Your task to perform on an android device: open device folders in google photos Image 0: 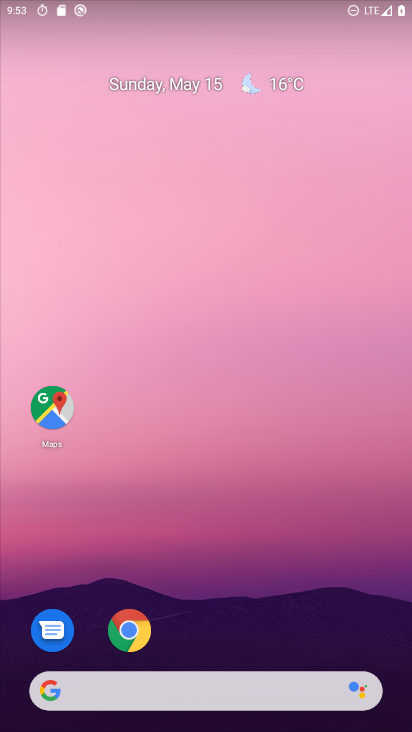
Step 0: drag from (224, 645) to (318, 182)
Your task to perform on an android device: open device folders in google photos Image 1: 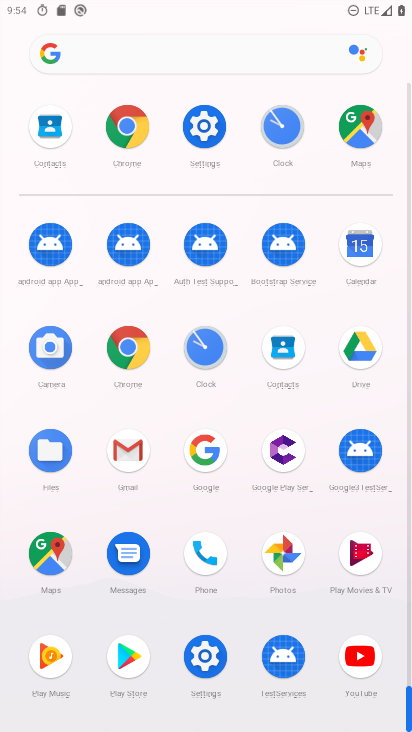
Step 1: click (280, 560)
Your task to perform on an android device: open device folders in google photos Image 2: 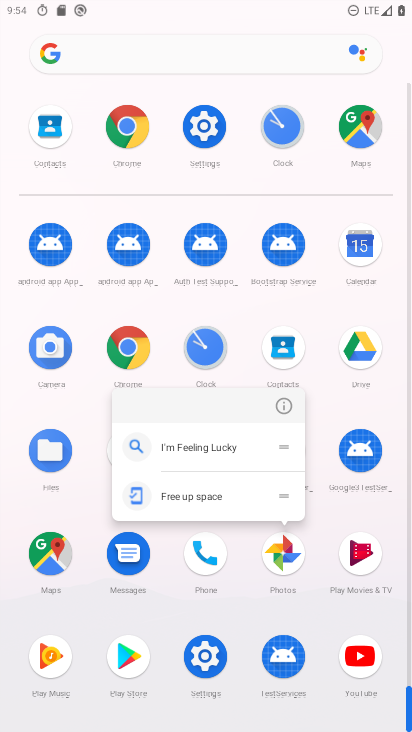
Step 2: click (284, 415)
Your task to perform on an android device: open device folders in google photos Image 3: 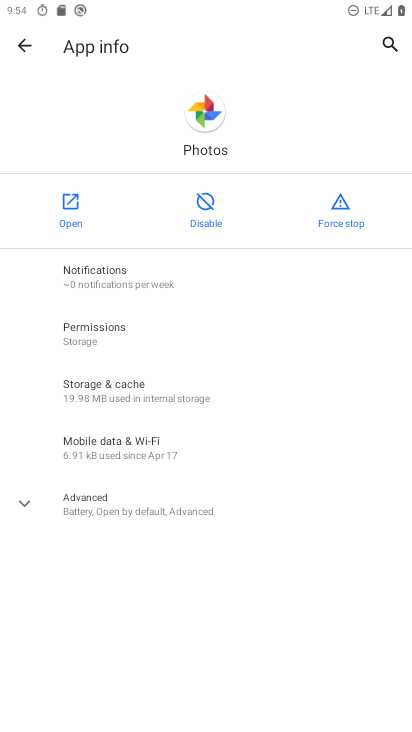
Step 3: click (62, 203)
Your task to perform on an android device: open device folders in google photos Image 4: 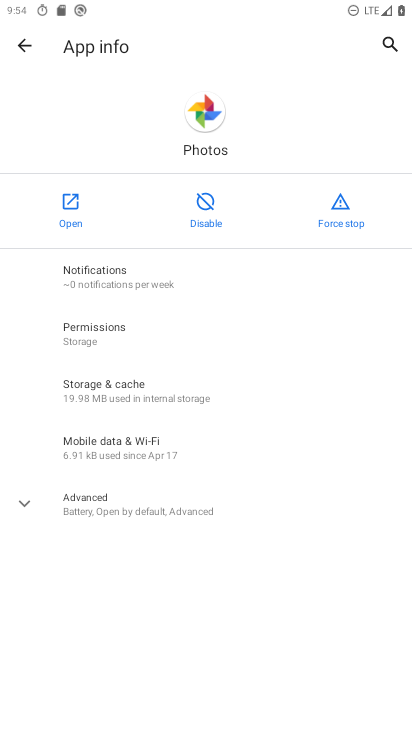
Step 4: click (62, 203)
Your task to perform on an android device: open device folders in google photos Image 5: 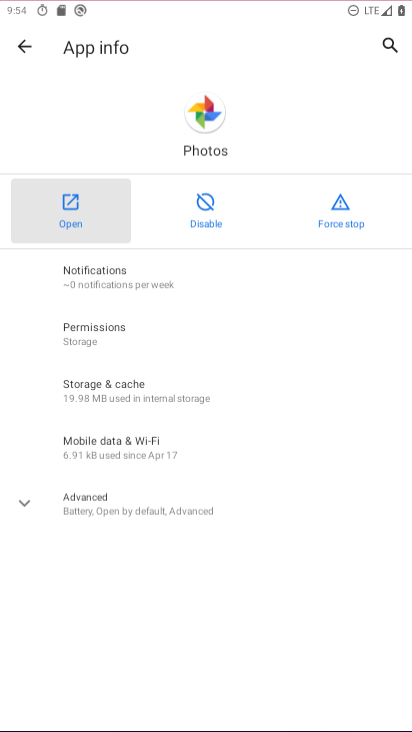
Step 5: click (62, 203)
Your task to perform on an android device: open device folders in google photos Image 6: 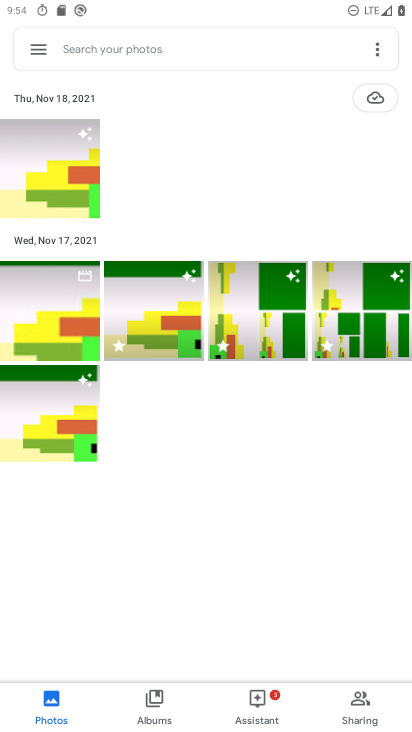
Step 6: click (42, 35)
Your task to perform on an android device: open device folders in google photos Image 7: 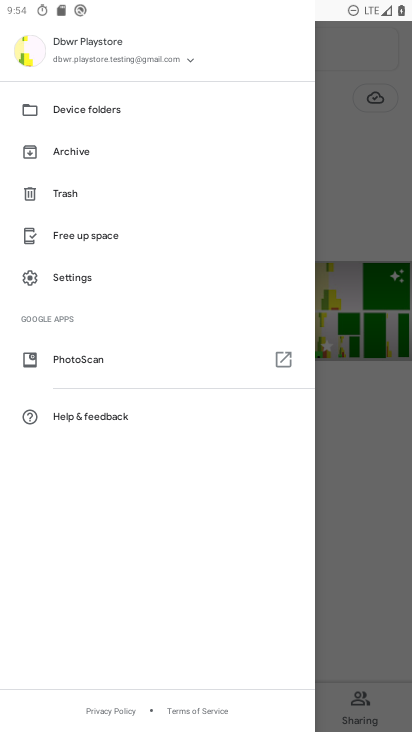
Step 7: click (101, 105)
Your task to perform on an android device: open device folders in google photos Image 8: 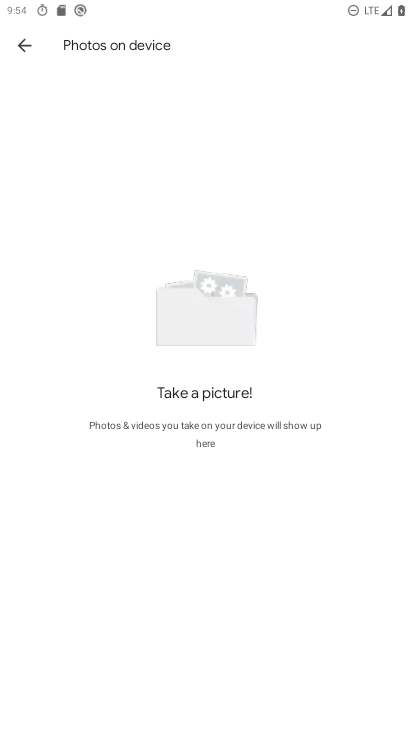
Step 8: task complete